Your task to perform on an android device: Go to location settings Image 0: 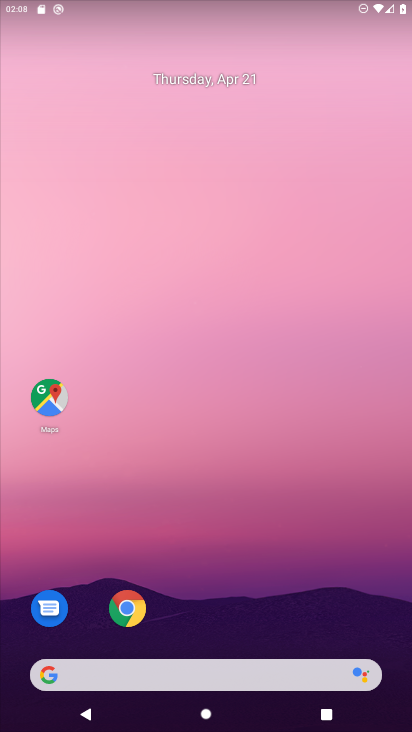
Step 0: drag from (232, 437) to (286, 153)
Your task to perform on an android device: Go to location settings Image 1: 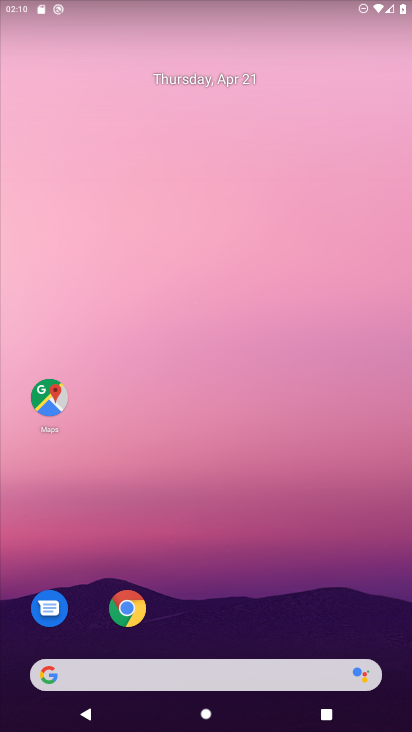
Step 1: drag from (265, 319) to (275, 166)
Your task to perform on an android device: Go to location settings Image 2: 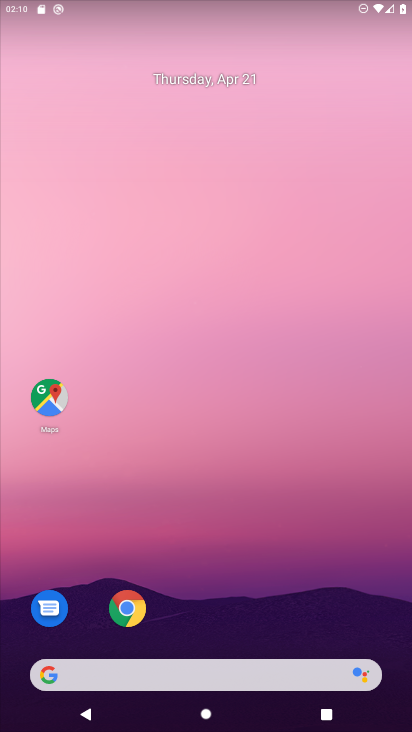
Step 2: drag from (262, 457) to (330, 1)
Your task to perform on an android device: Go to location settings Image 3: 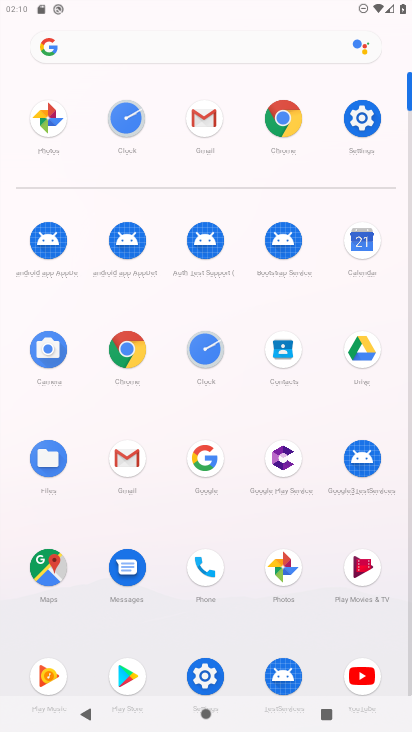
Step 3: click (352, 116)
Your task to perform on an android device: Go to location settings Image 4: 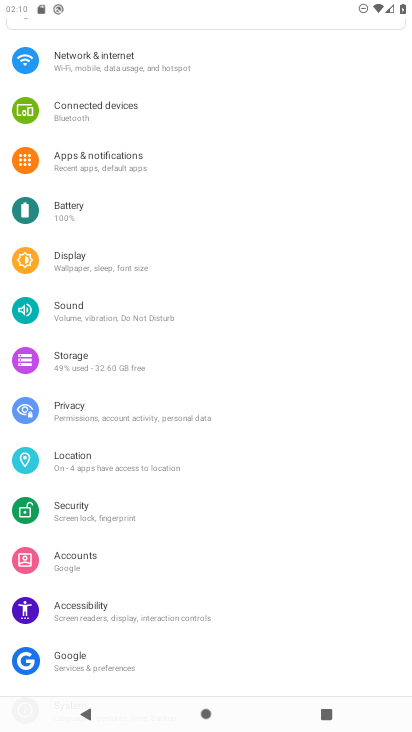
Step 4: click (117, 462)
Your task to perform on an android device: Go to location settings Image 5: 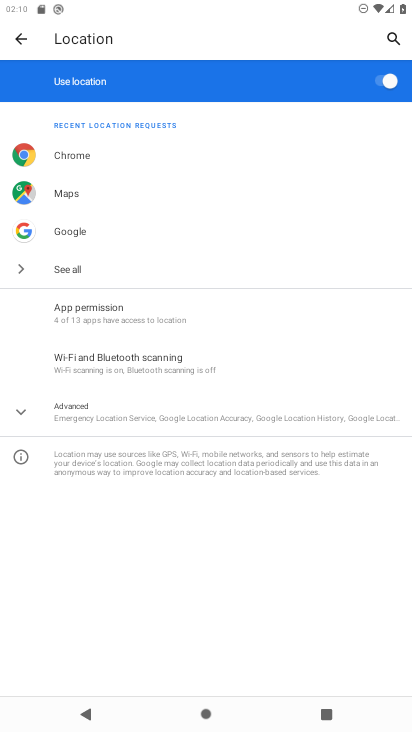
Step 5: task complete